Your task to perform on an android device: Open Yahoo.com Image 0: 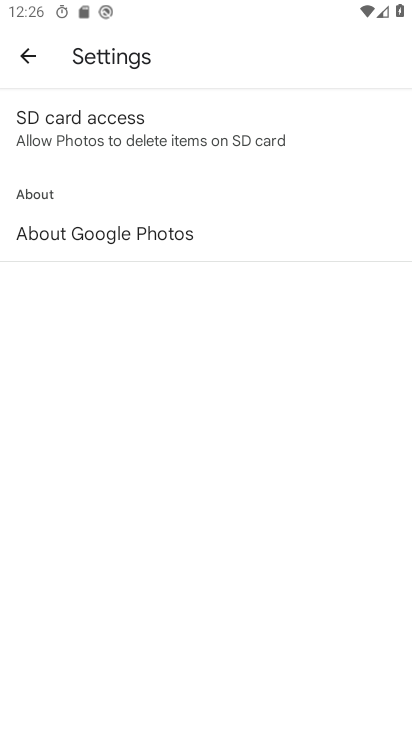
Step 0: press home button
Your task to perform on an android device: Open Yahoo.com Image 1: 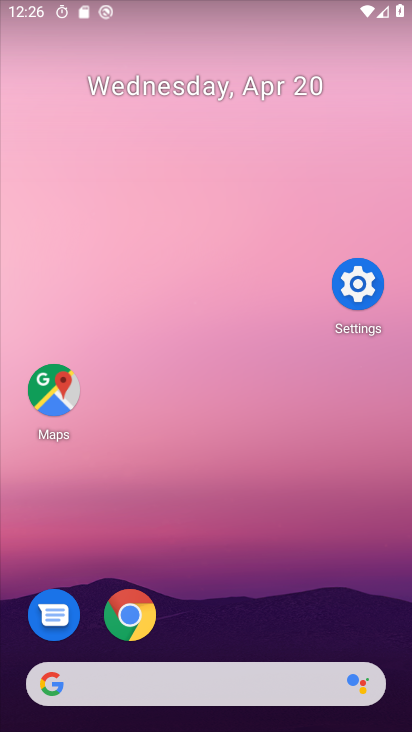
Step 1: drag from (211, 416) to (314, 90)
Your task to perform on an android device: Open Yahoo.com Image 2: 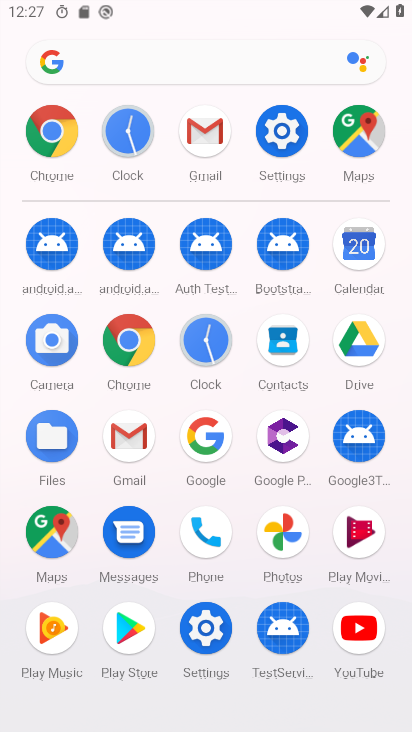
Step 2: click (128, 343)
Your task to perform on an android device: Open Yahoo.com Image 3: 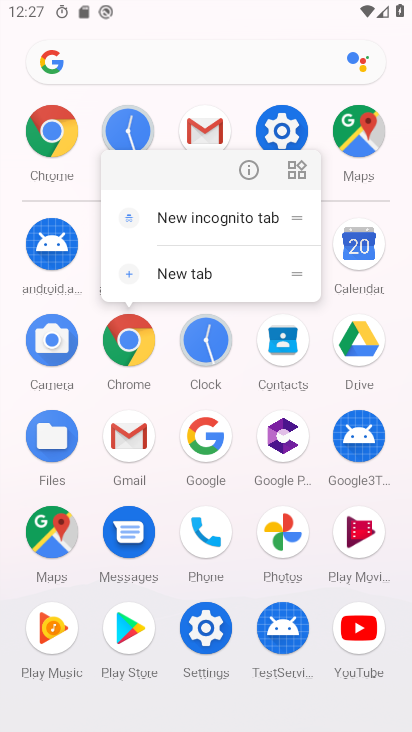
Step 3: click (255, 171)
Your task to perform on an android device: Open Yahoo.com Image 4: 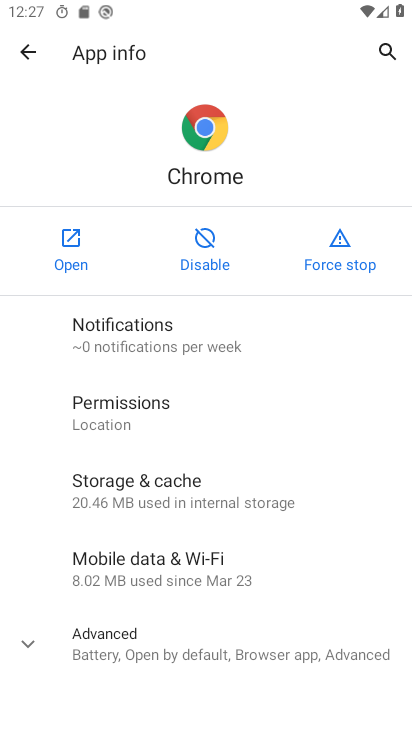
Step 4: click (71, 247)
Your task to perform on an android device: Open Yahoo.com Image 5: 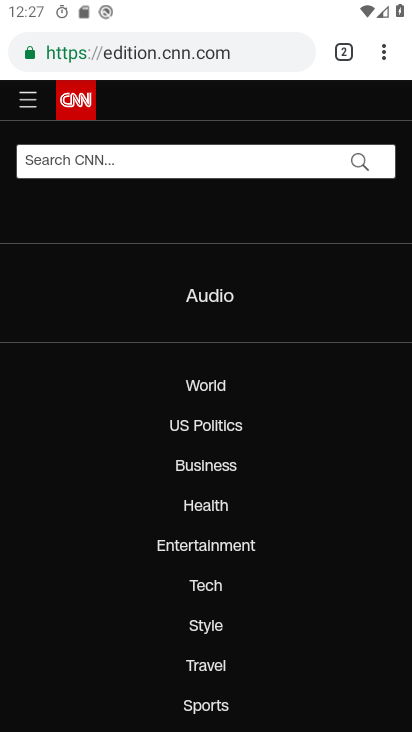
Step 5: click (166, 50)
Your task to perform on an android device: Open Yahoo.com Image 6: 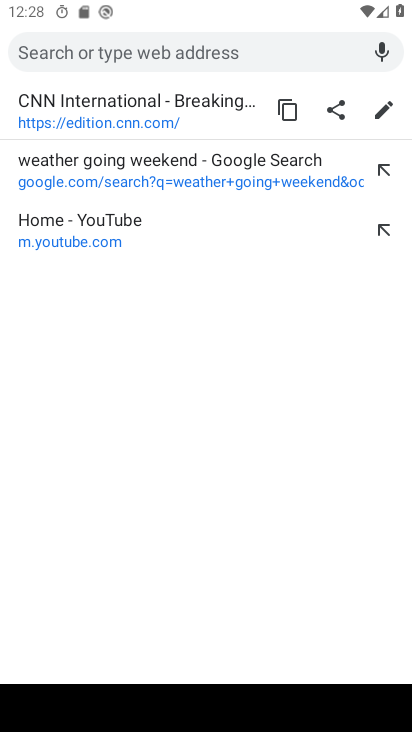
Step 6: type "yahoo"
Your task to perform on an android device: Open Yahoo.com Image 7: 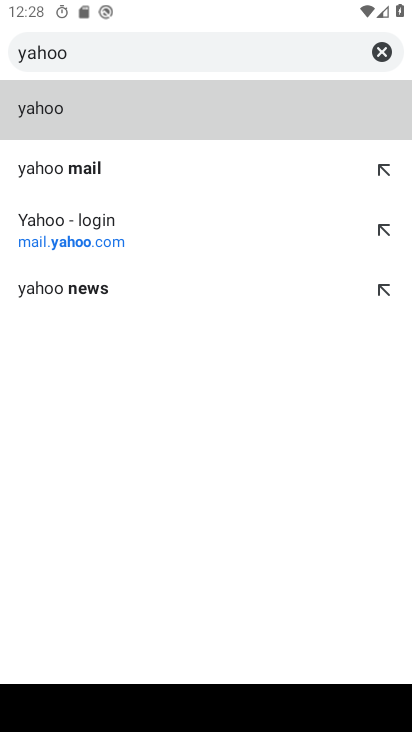
Step 7: click (71, 115)
Your task to perform on an android device: Open Yahoo.com Image 8: 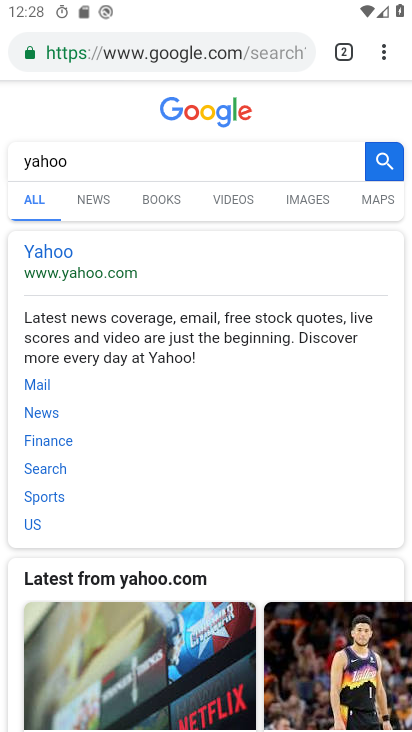
Step 8: drag from (215, 486) to (335, 129)
Your task to perform on an android device: Open Yahoo.com Image 9: 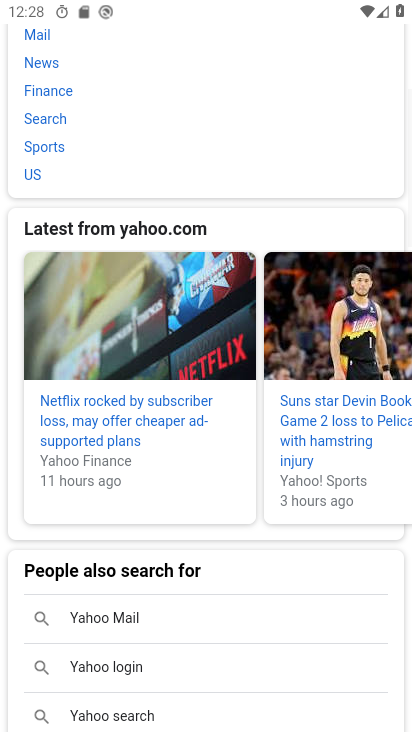
Step 9: drag from (241, 155) to (346, 535)
Your task to perform on an android device: Open Yahoo.com Image 10: 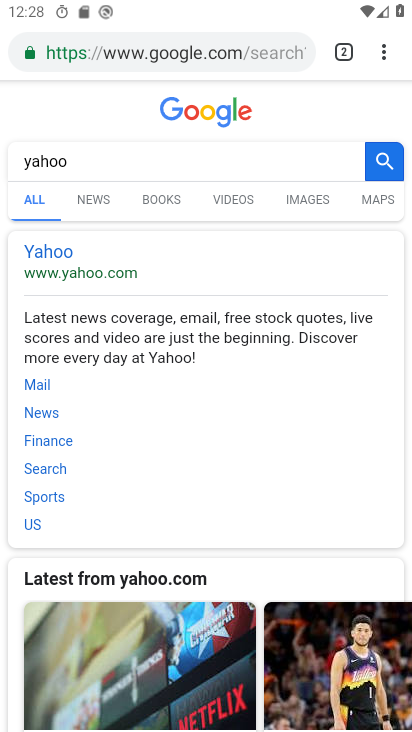
Step 10: click (39, 254)
Your task to perform on an android device: Open Yahoo.com Image 11: 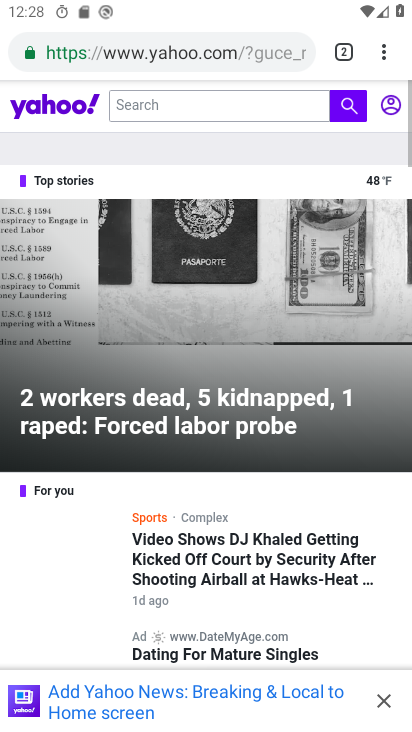
Step 11: task complete